Your task to perform on an android device: Open Google Image 0: 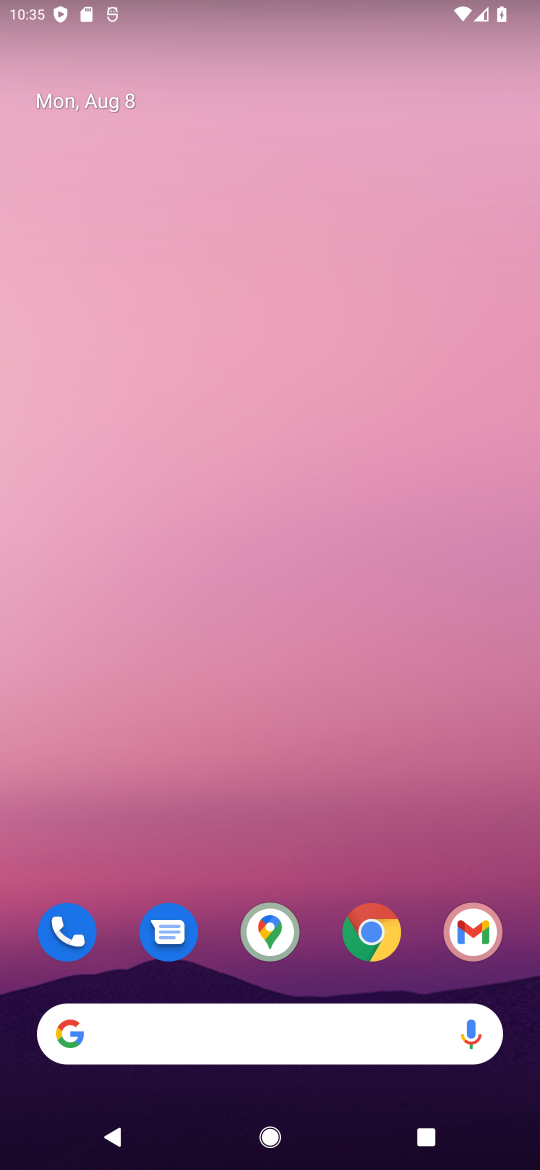
Step 0: click (283, 1042)
Your task to perform on an android device: Open Google Image 1: 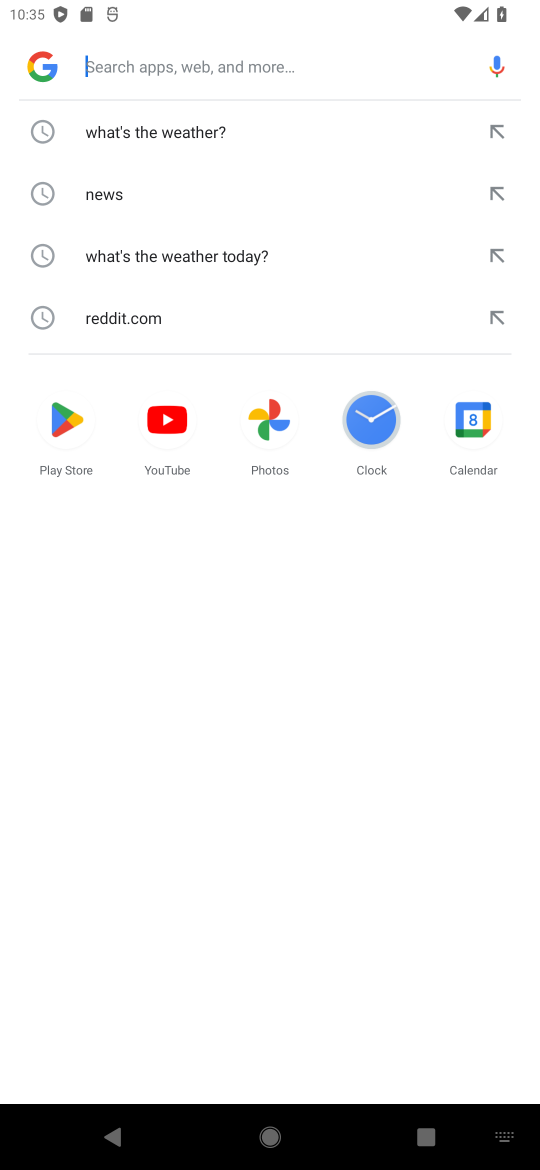
Step 1: task complete